Your task to perform on an android device: show emergency info Image 0: 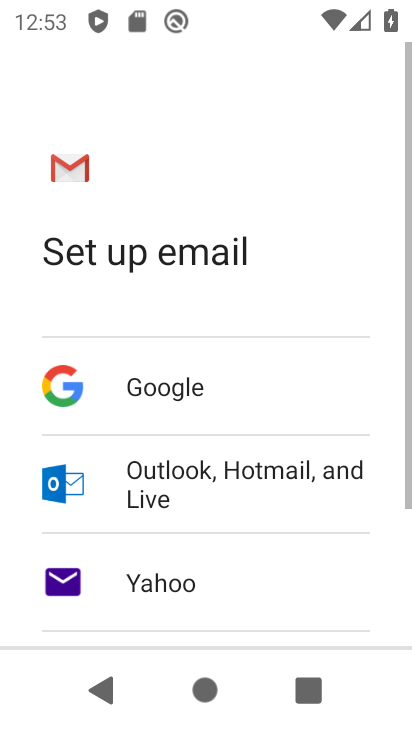
Step 0: press back button
Your task to perform on an android device: show emergency info Image 1: 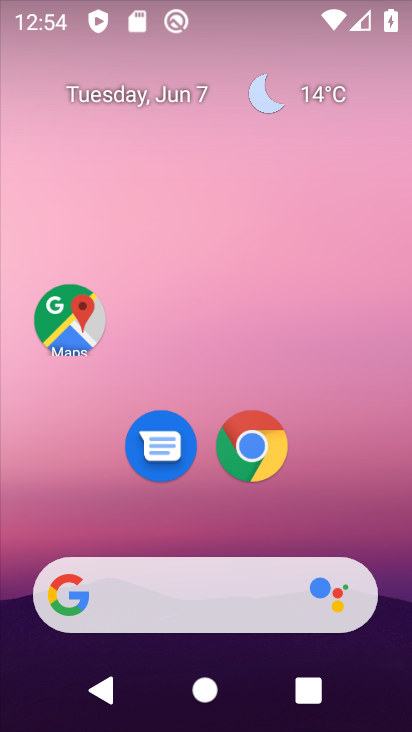
Step 1: drag from (398, 634) to (308, 45)
Your task to perform on an android device: show emergency info Image 2: 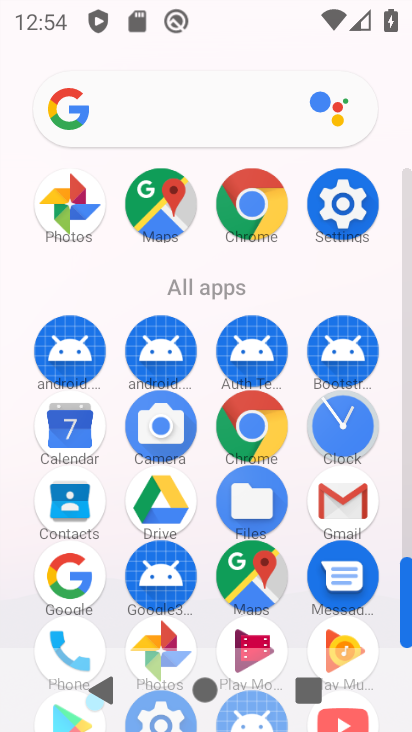
Step 2: click (342, 199)
Your task to perform on an android device: show emergency info Image 3: 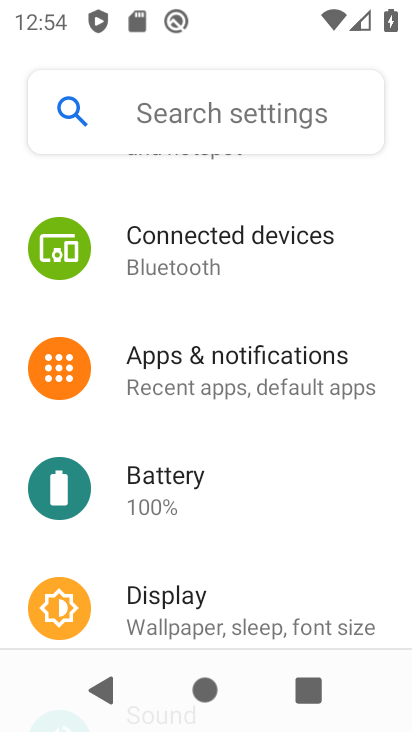
Step 3: drag from (270, 597) to (281, 203)
Your task to perform on an android device: show emergency info Image 4: 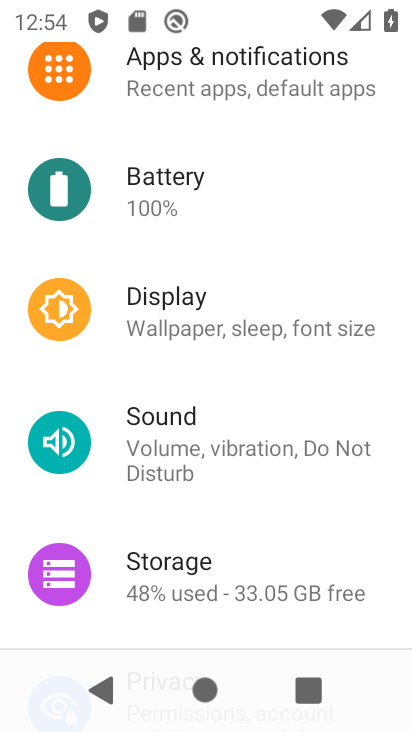
Step 4: drag from (270, 566) to (273, 165)
Your task to perform on an android device: show emergency info Image 5: 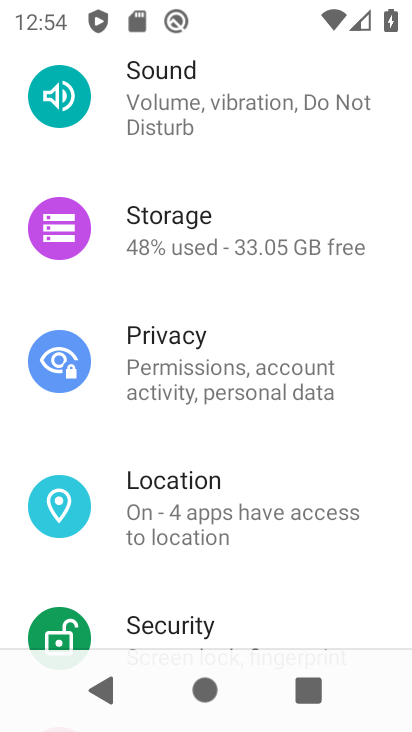
Step 5: drag from (251, 586) to (267, 184)
Your task to perform on an android device: show emergency info Image 6: 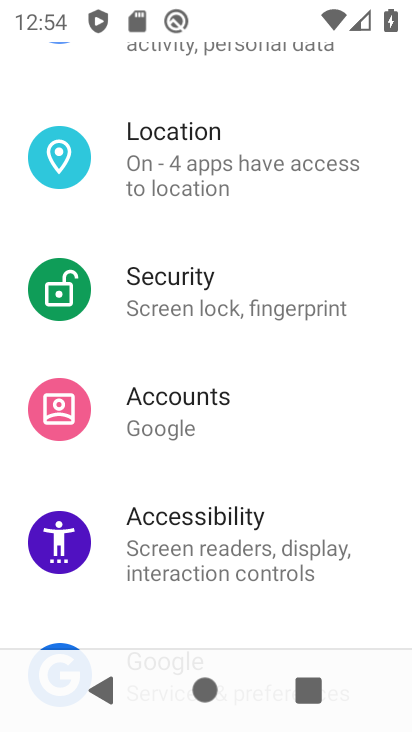
Step 6: drag from (258, 586) to (266, 166)
Your task to perform on an android device: show emergency info Image 7: 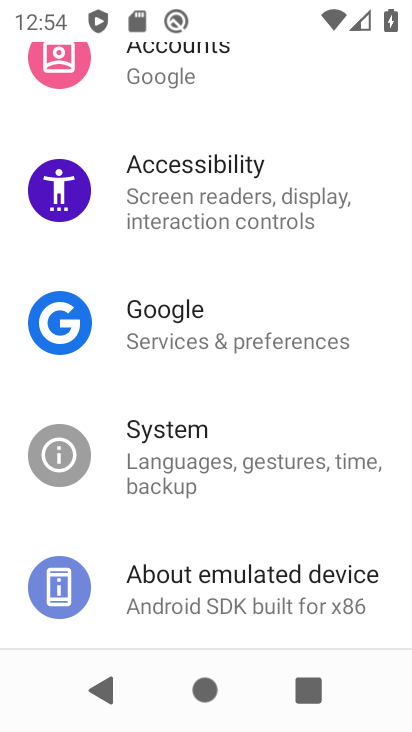
Step 7: click (229, 579)
Your task to perform on an android device: show emergency info Image 8: 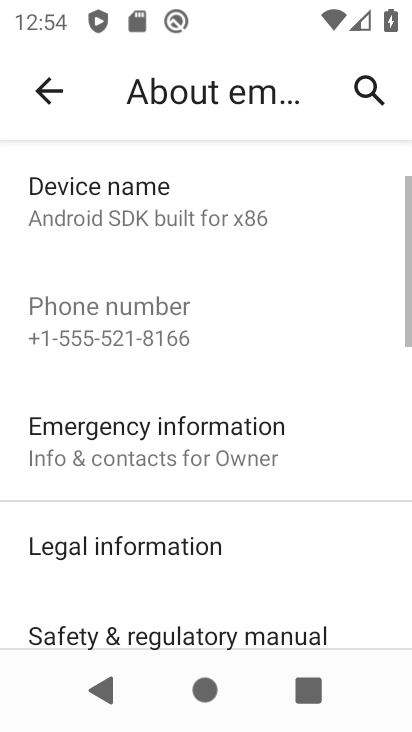
Step 8: task complete